Your task to perform on an android device: Open the stopwatch Image 0: 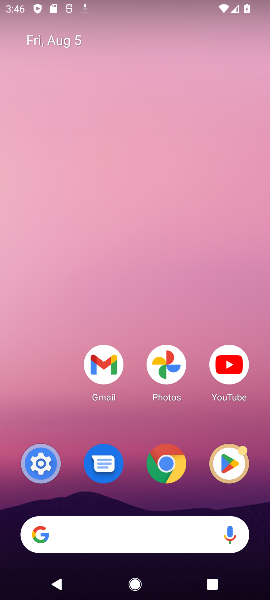
Step 0: drag from (196, 501) to (140, 160)
Your task to perform on an android device: Open the stopwatch Image 1: 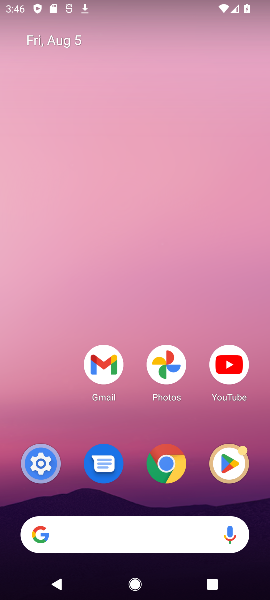
Step 1: drag from (179, 487) to (137, 167)
Your task to perform on an android device: Open the stopwatch Image 2: 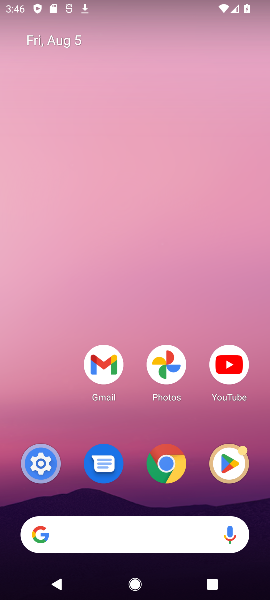
Step 2: drag from (183, 459) to (136, 211)
Your task to perform on an android device: Open the stopwatch Image 3: 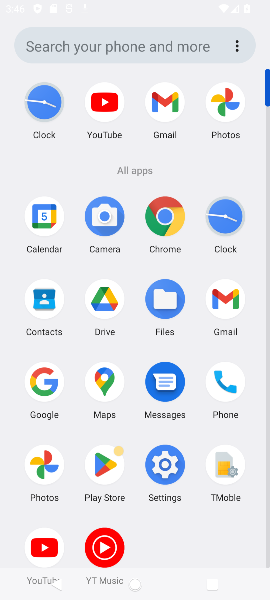
Step 3: drag from (171, 469) to (133, 127)
Your task to perform on an android device: Open the stopwatch Image 4: 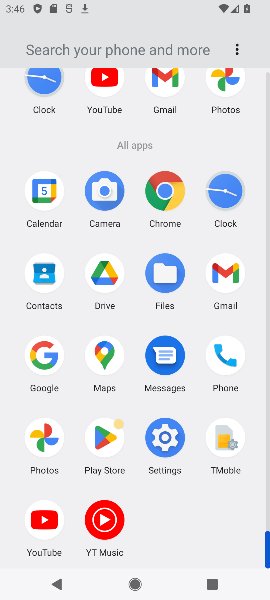
Step 4: click (220, 194)
Your task to perform on an android device: Open the stopwatch Image 5: 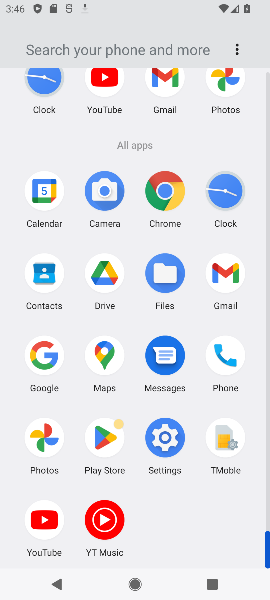
Step 5: click (219, 193)
Your task to perform on an android device: Open the stopwatch Image 6: 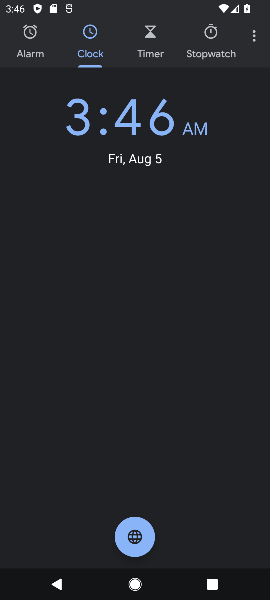
Step 6: click (208, 38)
Your task to perform on an android device: Open the stopwatch Image 7: 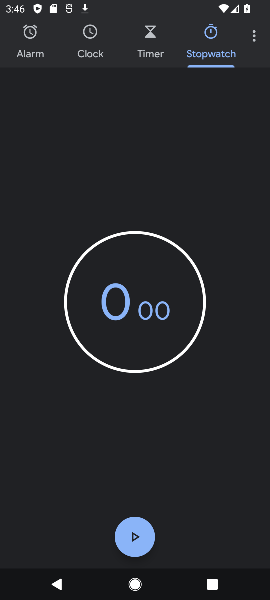
Step 7: click (136, 539)
Your task to perform on an android device: Open the stopwatch Image 8: 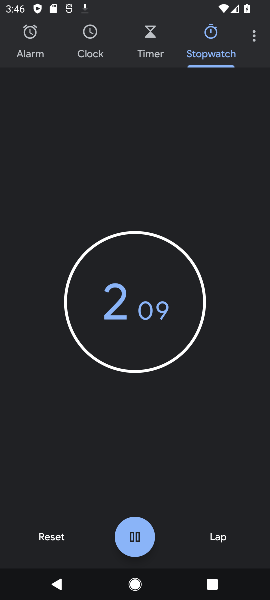
Step 8: click (140, 530)
Your task to perform on an android device: Open the stopwatch Image 9: 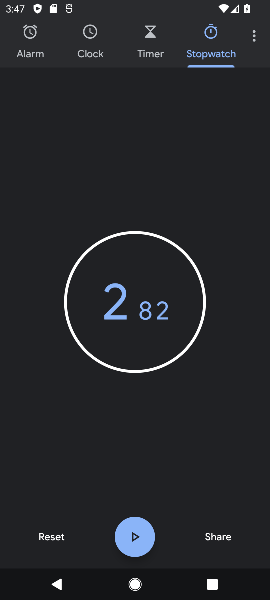
Step 9: task complete